Your task to perform on an android device: Is it going to rain tomorrow? Image 0: 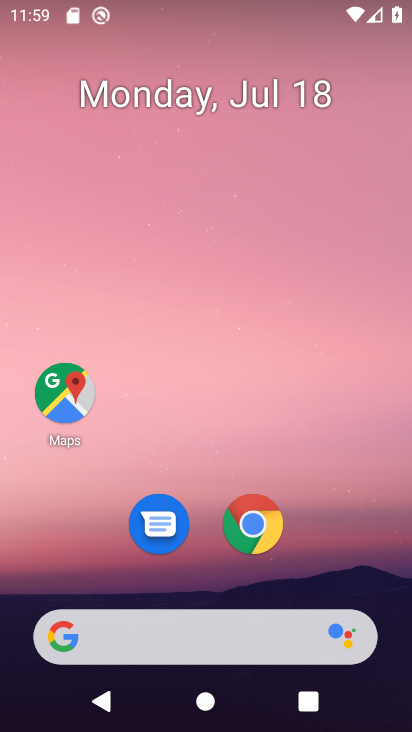
Step 0: click (311, 559)
Your task to perform on an android device: Is it going to rain tomorrow? Image 1: 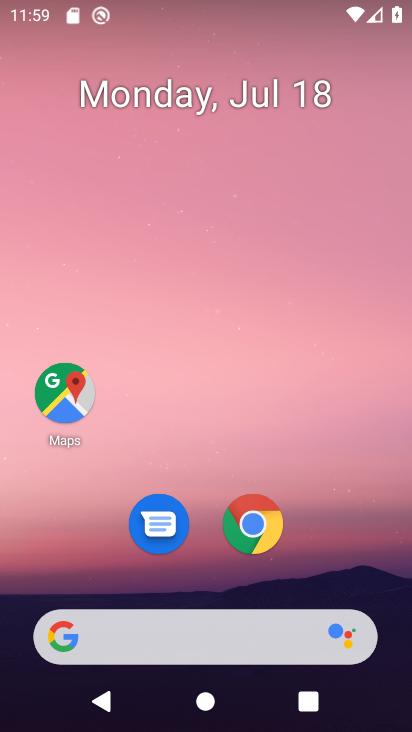
Step 1: click (238, 647)
Your task to perform on an android device: Is it going to rain tomorrow? Image 2: 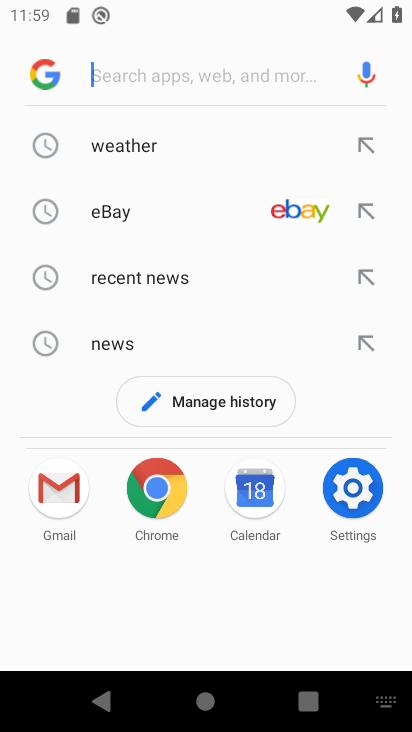
Step 2: click (137, 139)
Your task to perform on an android device: Is it going to rain tomorrow? Image 3: 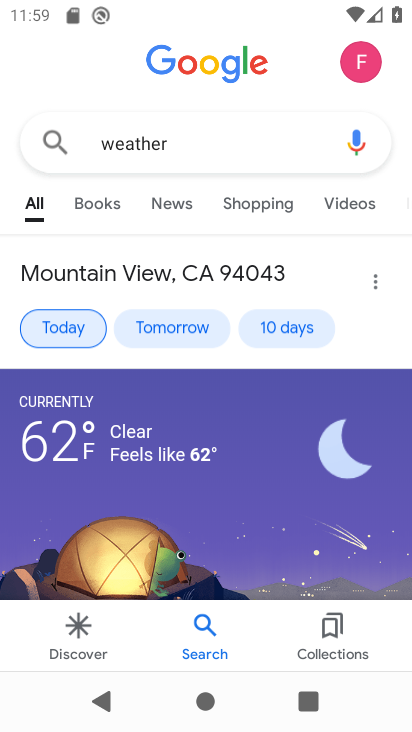
Step 3: click (76, 325)
Your task to perform on an android device: Is it going to rain tomorrow? Image 4: 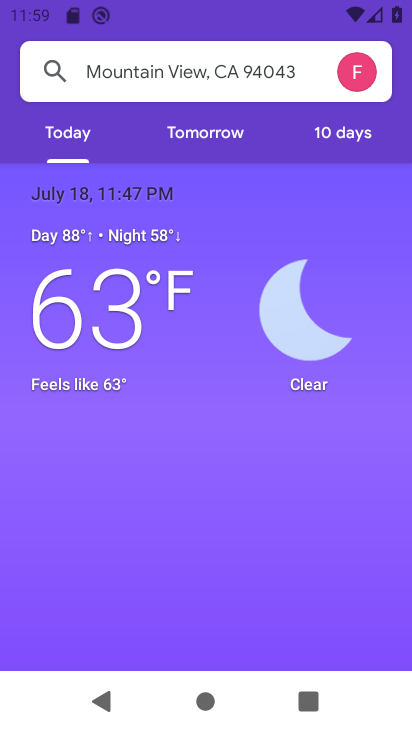
Step 4: click (220, 135)
Your task to perform on an android device: Is it going to rain tomorrow? Image 5: 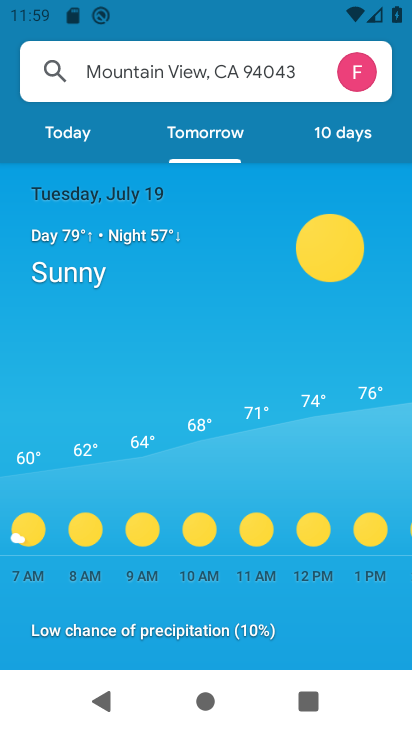
Step 5: task complete